Your task to perform on an android device: Open Google Chrome and open the bookmarks view Image 0: 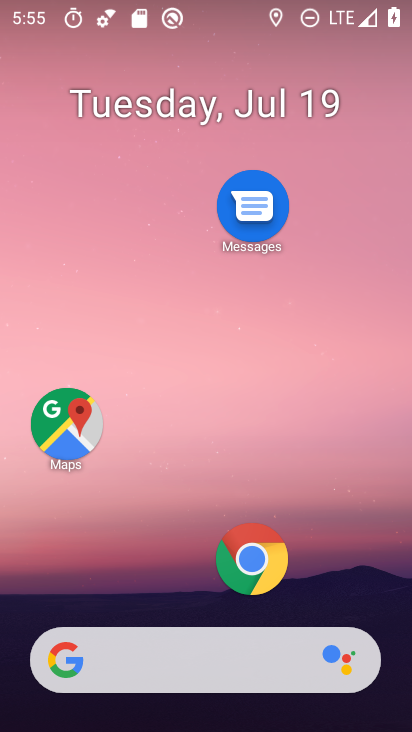
Step 0: click (272, 556)
Your task to perform on an android device: Open Google Chrome and open the bookmarks view Image 1: 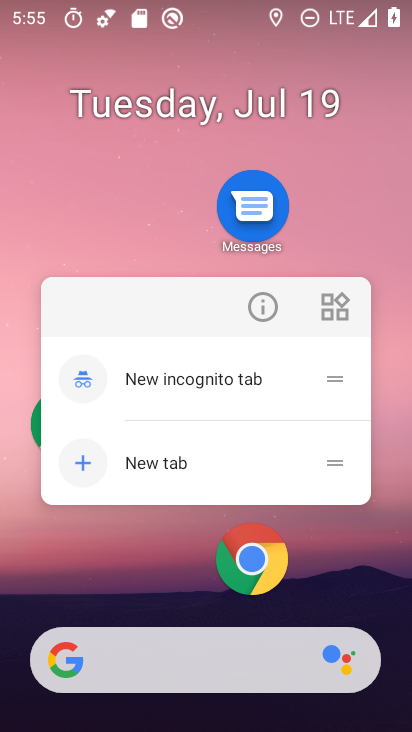
Step 1: click (241, 569)
Your task to perform on an android device: Open Google Chrome and open the bookmarks view Image 2: 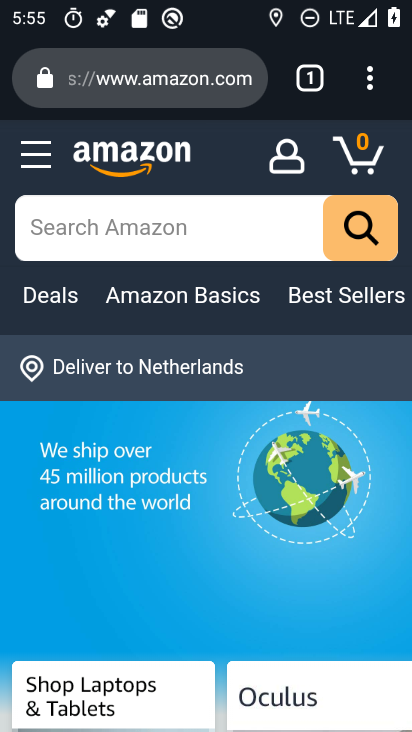
Step 2: task complete